Your task to perform on an android device: open chrome and create a bookmark for the current page Image 0: 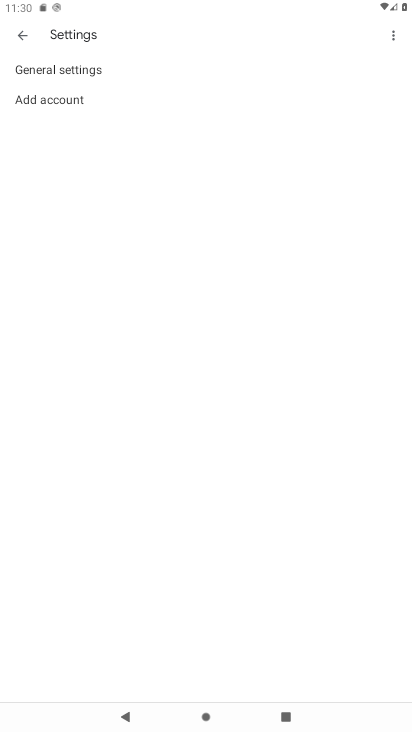
Step 0: press home button
Your task to perform on an android device: open chrome and create a bookmark for the current page Image 1: 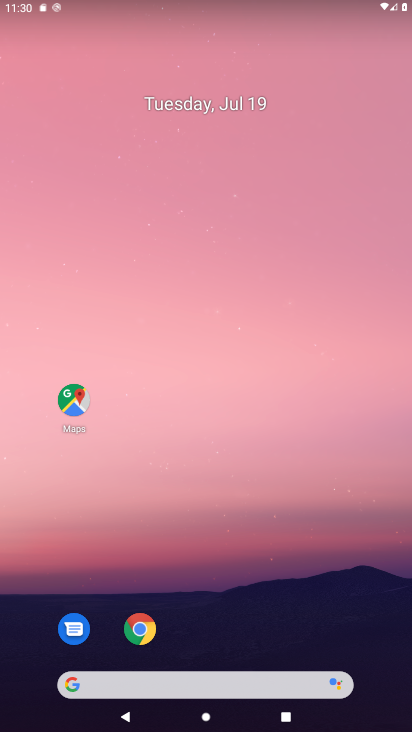
Step 1: drag from (349, 615) to (356, 94)
Your task to perform on an android device: open chrome and create a bookmark for the current page Image 2: 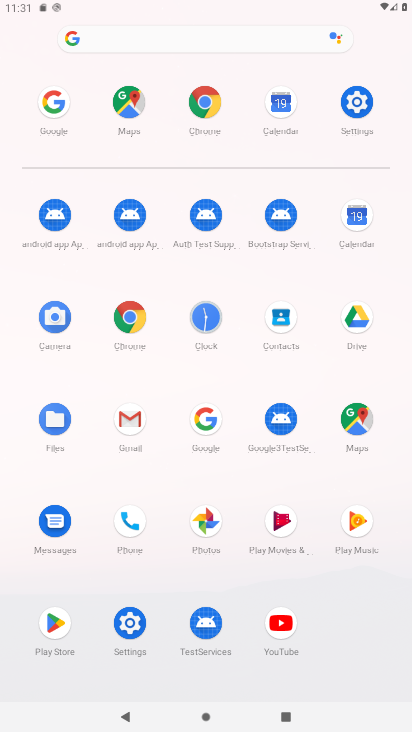
Step 2: click (135, 317)
Your task to perform on an android device: open chrome and create a bookmark for the current page Image 3: 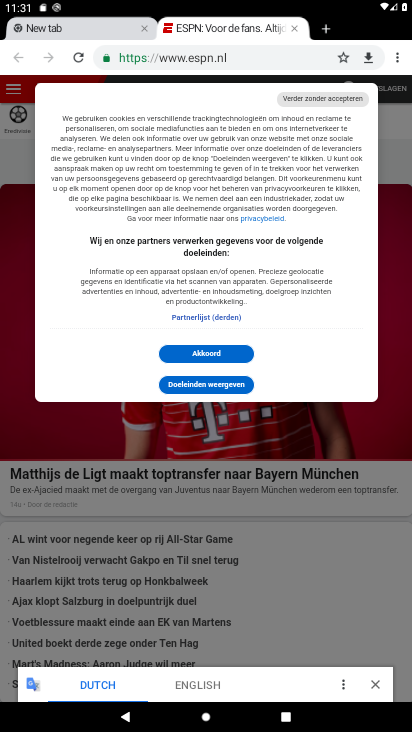
Step 3: click (341, 49)
Your task to perform on an android device: open chrome and create a bookmark for the current page Image 4: 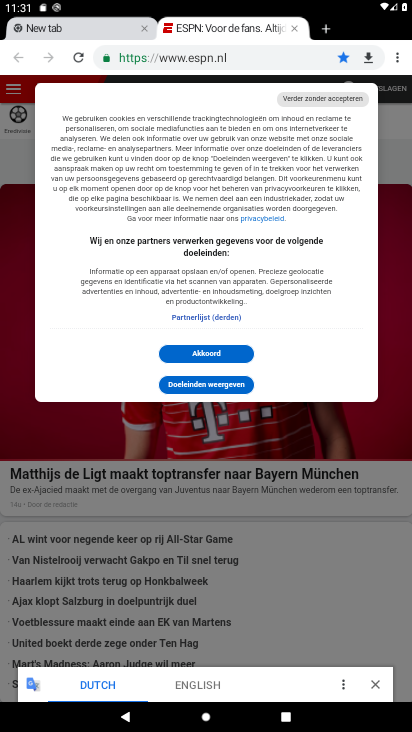
Step 4: task complete